Your task to perform on an android device: Go to Android settings Image 0: 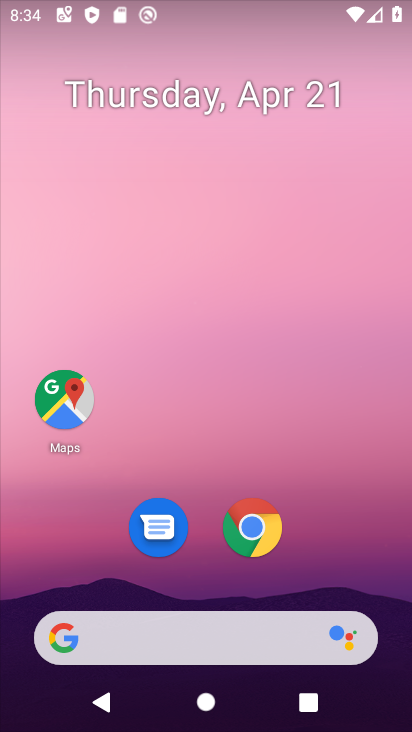
Step 0: drag from (309, 597) to (312, 418)
Your task to perform on an android device: Go to Android settings Image 1: 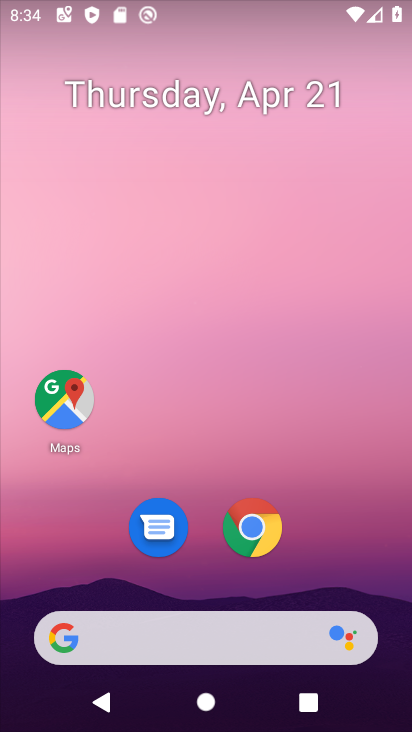
Step 1: drag from (308, 578) to (311, 152)
Your task to perform on an android device: Go to Android settings Image 2: 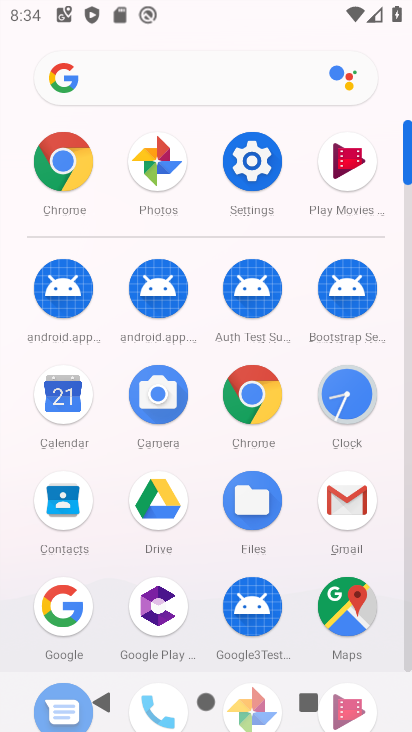
Step 2: click (246, 162)
Your task to perform on an android device: Go to Android settings Image 3: 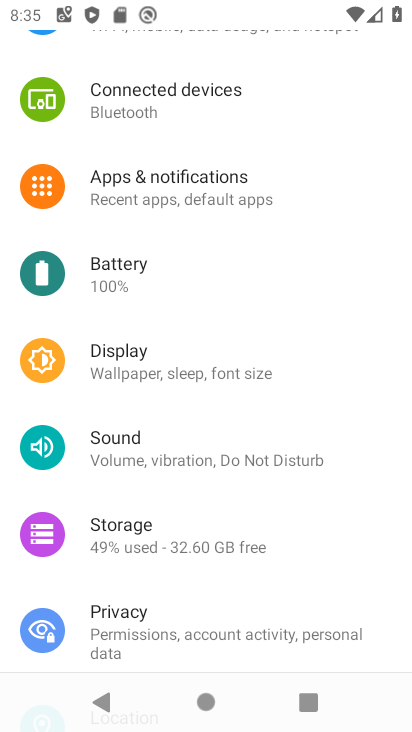
Step 3: drag from (219, 333) to (408, 420)
Your task to perform on an android device: Go to Android settings Image 4: 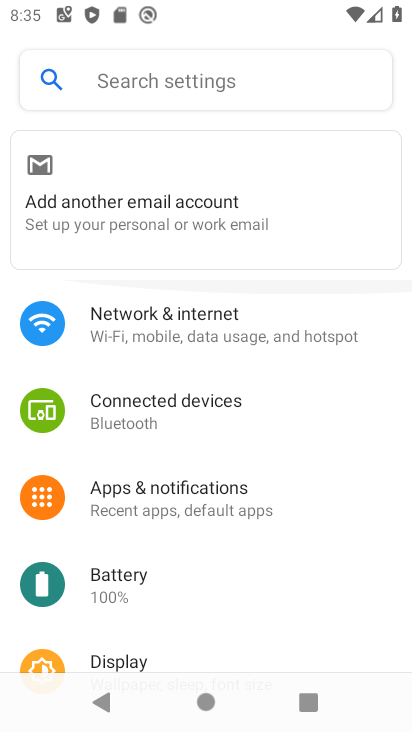
Step 4: drag from (277, 605) to (272, 199)
Your task to perform on an android device: Go to Android settings Image 5: 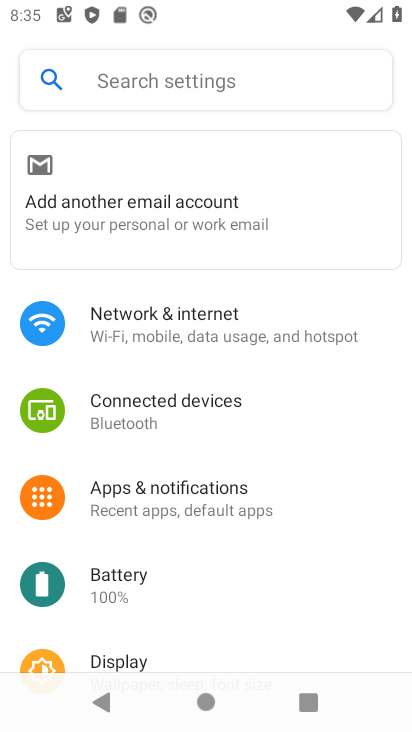
Step 5: drag from (165, 580) to (137, 17)
Your task to perform on an android device: Go to Android settings Image 6: 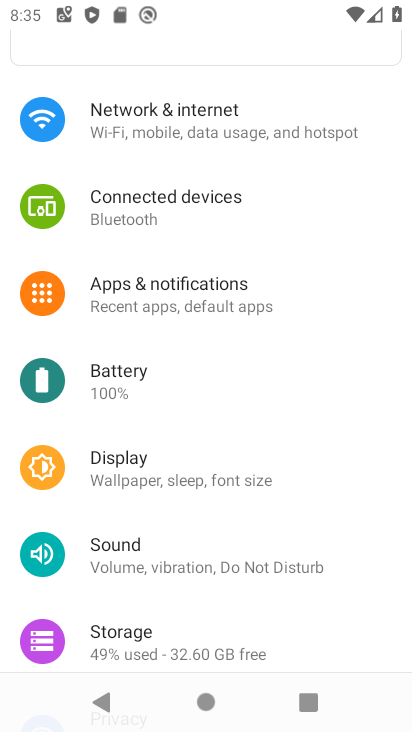
Step 6: drag from (231, 541) to (253, 136)
Your task to perform on an android device: Go to Android settings Image 7: 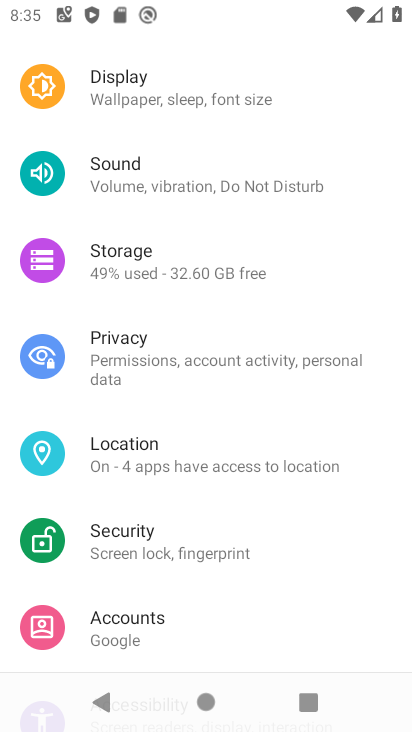
Step 7: drag from (287, 532) to (298, 91)
Your task to perform on an android device: Go to Android settings Image 8: 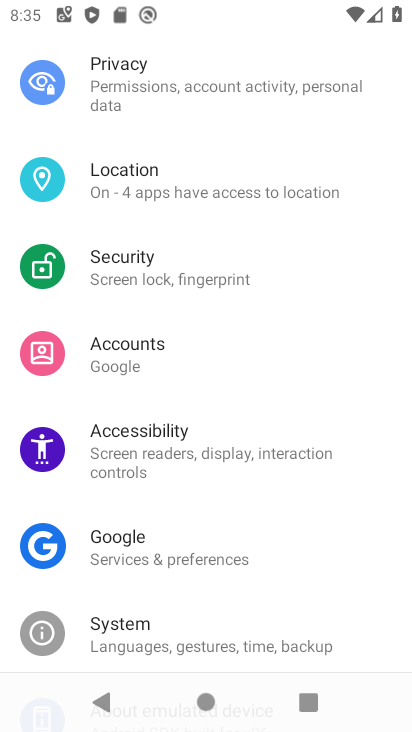
Step 8: drag from (251, 485) to (335, 35)
Your task to perform on an android device: Go to Android settings Image 9: 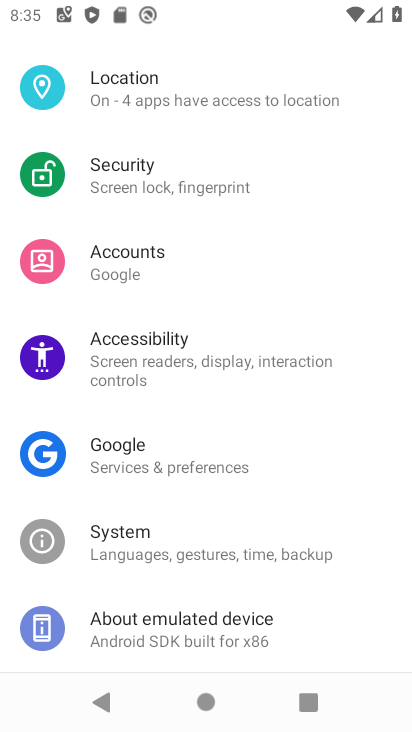
Step 9: click (276, 643)
Your task to perform on an android device: Go to Android settings Image 10: 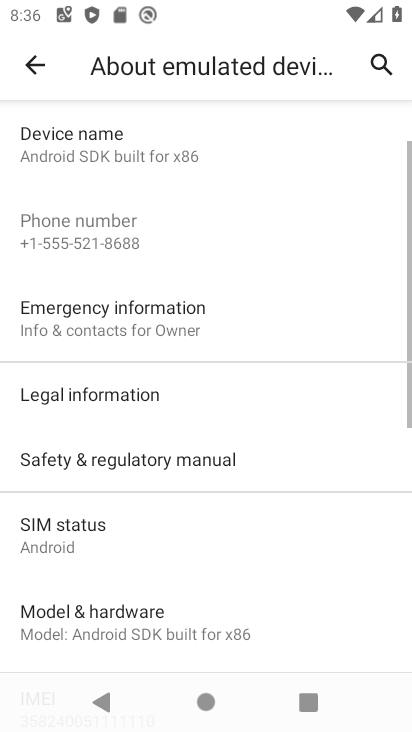
Step 10: drag from (278, 554) to (264, 278)
Your task to perform on an android device: Go to Android settings Image 11: 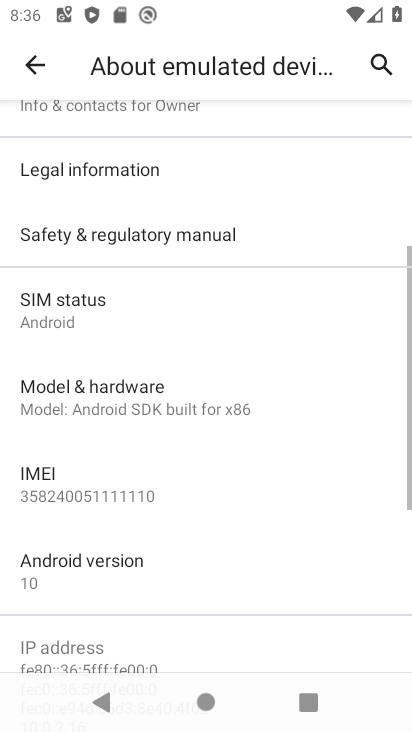
Step 11: click (216, 557)
Your task to perform on an android device: Go to Android settings Image 12: 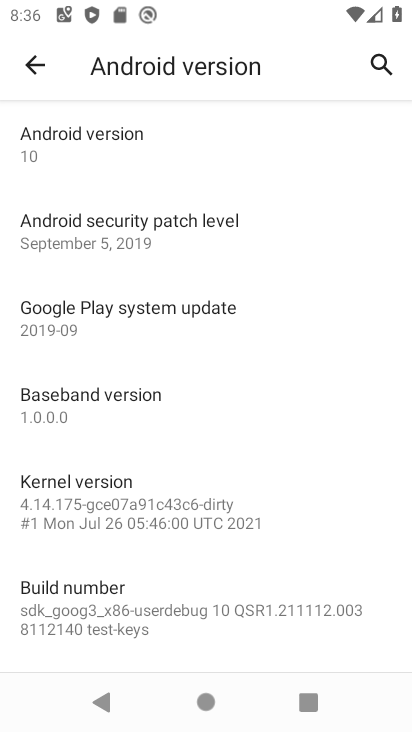
Step 12: task complete